Your task to perform on an android device: change alarm snooze length Image 0: 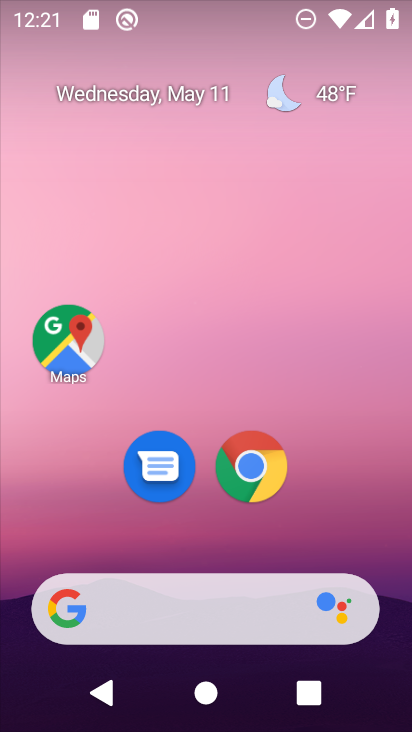
Step 0: drag from (218, 540) to (249, 48)
Your task to perform on an android device: change alarm snooze length Image 1: 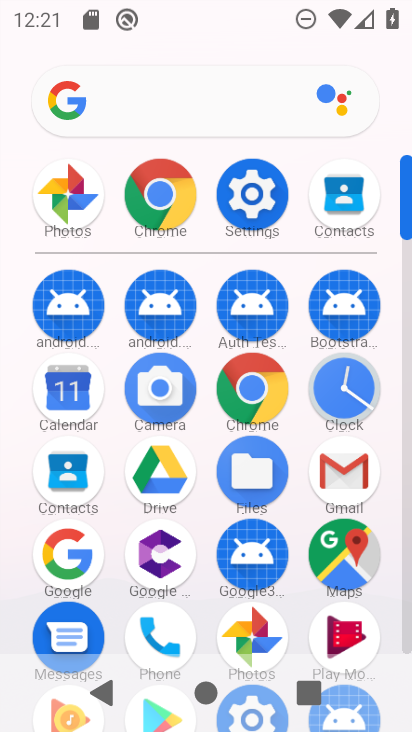
Step 1: click (340, 382)
Your task to perform on an android device: change alarm snooze length Image 2: 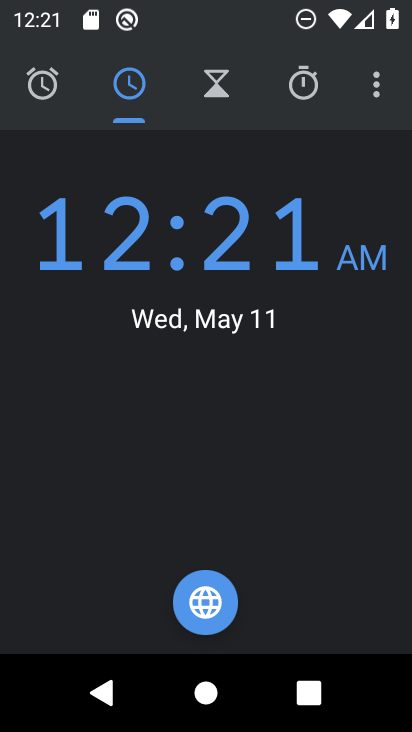
Step 2: click (375, 90)
Your task to perform on an android device: change alarm snooze length Image 3: 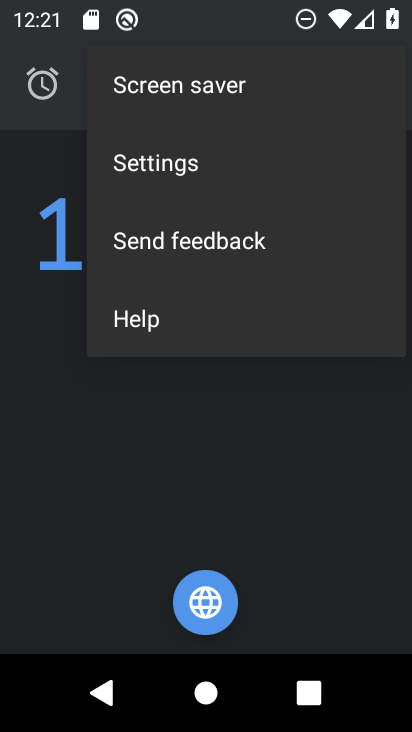
Step 3: click (215, 166)
Your task to perform on an android device: change alarm snooze length Image 4: 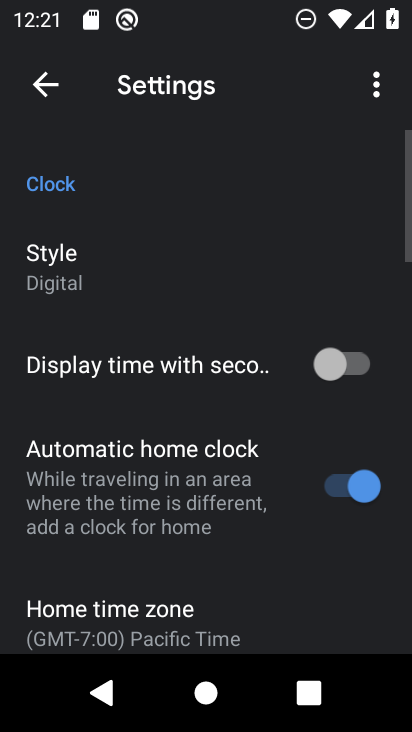
Step 4: drag from (221, 618) to (229, 281)
Your task to perform on an android device: change alarm snooze length Image 5: 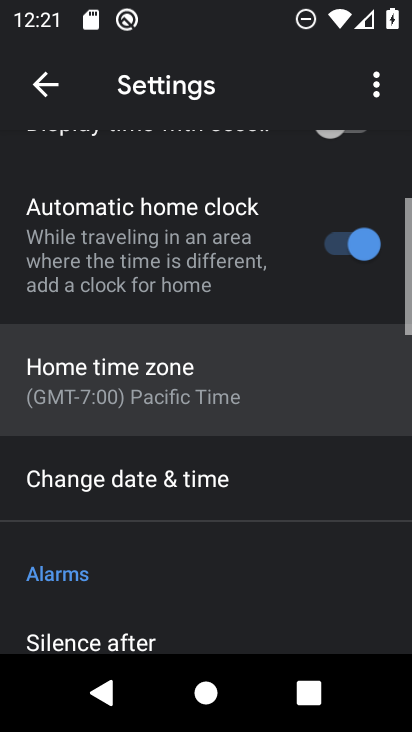
Step 5: drag from (229, 155) to (229, 108)
Your task to perform on an android device: change alarm snooze length Image 6: 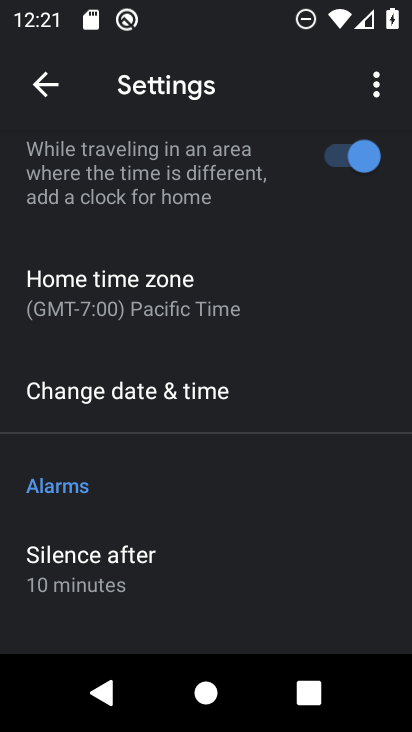
Step 6: drag from (199, 567) to (220, 194)
Your task to perform on an android device: change alarm snooze length Image 7: 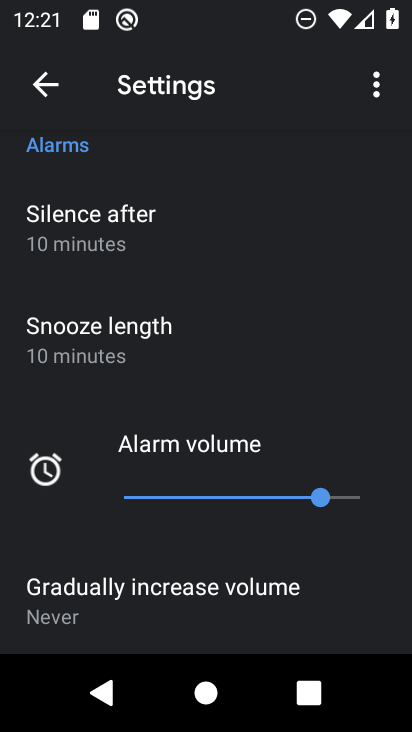
Step 7: click (164, 346)
Your task to perform on an android device: change alarm snooze length Image 8: 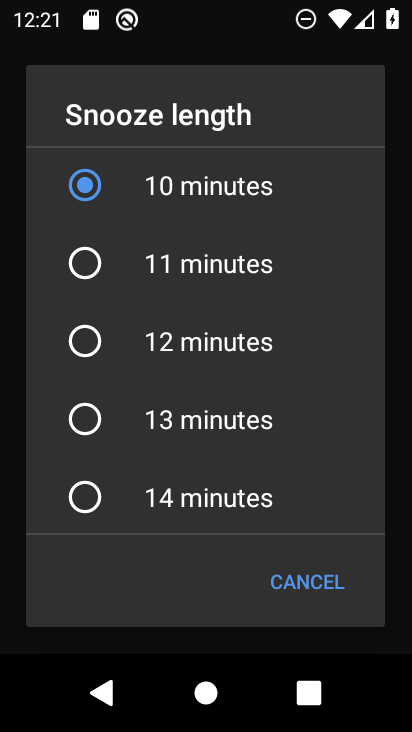
Step 8: drag from (124, 239) to (124, 548)
Your task to perform on an android device: change alarm snooze length Image 9: 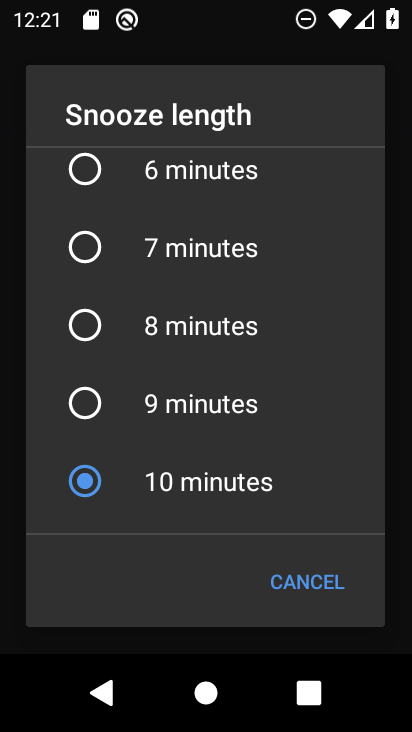
Step 9: click (86, 244)
Your task to perform on an android device: change alarm snooze length Image 10: 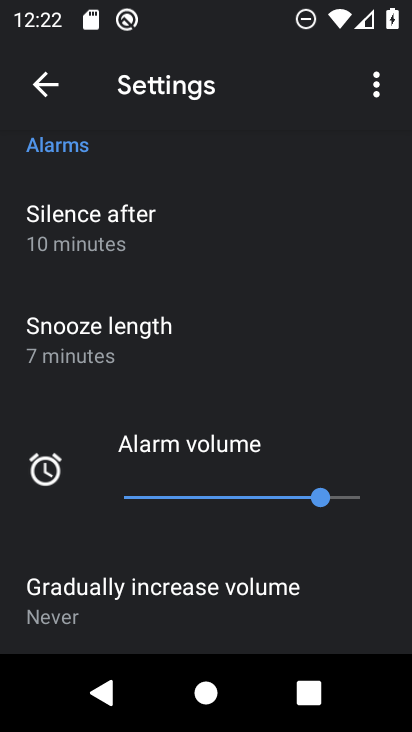
Step 10: task complete